Your task to perform on an android device: Open battery settings Image 0: 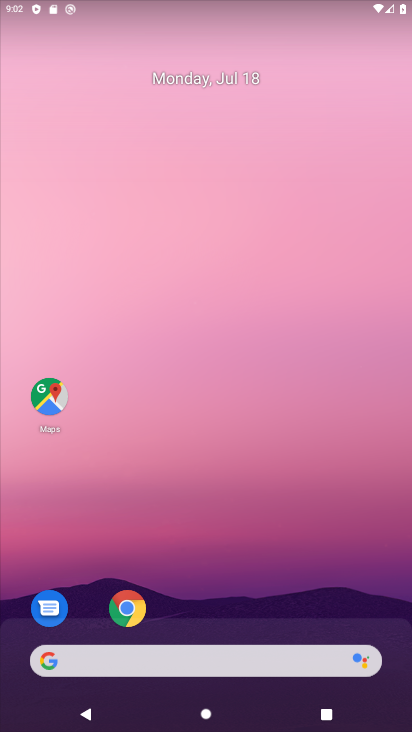
Step 0: press home button
Your task to perform on an android device: Open battery settings Image 1: 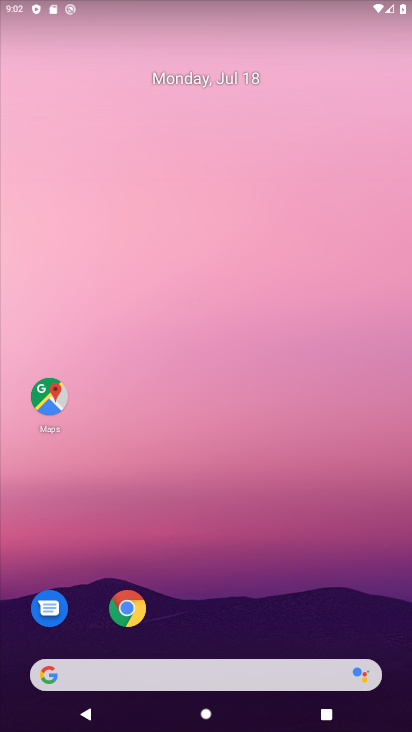
Step 1: drag from (248, 634) to (273, 19)
Your task to perform on an android device: Open battery settings Image 2: 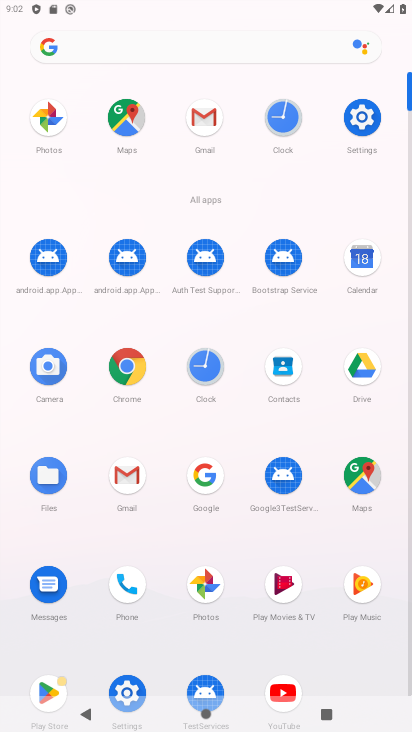
Step 2: click (364, 105)
Your task to perform on an android device: Open battery settings Image 3: 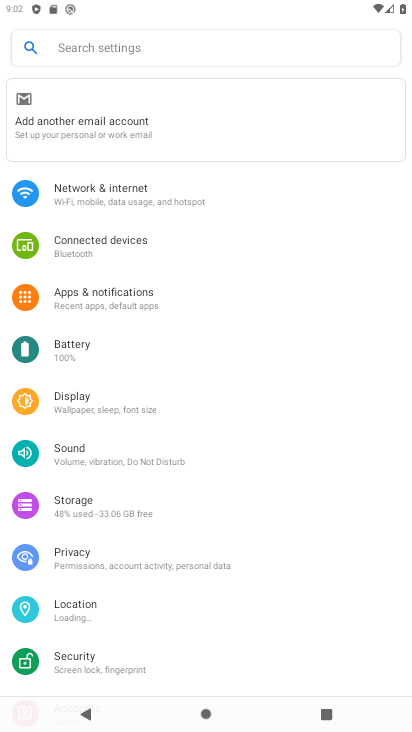
Step 3: click (102, 345)
Your task to perform on an android device: Open battery settings Image 4: 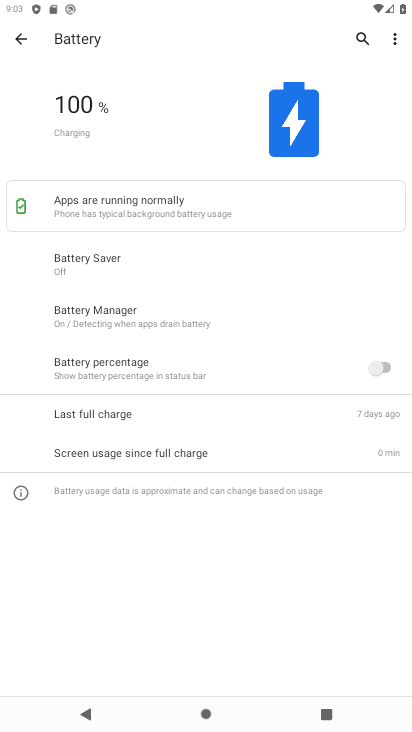
Step 4: task complete